Your task to perform on an android device: Open the phone app and click the voicemail tab. Image 0: 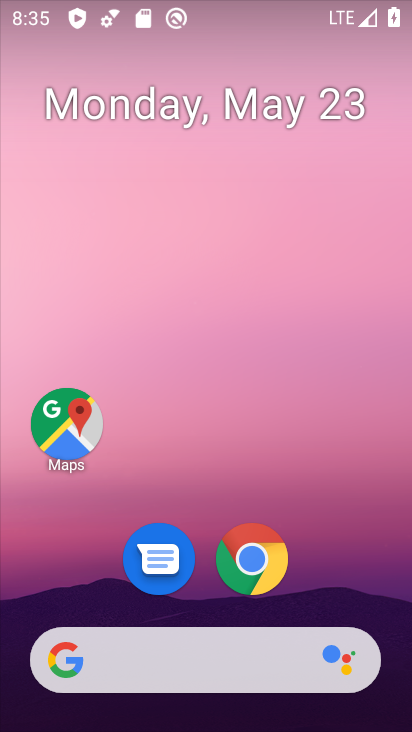
Step 0: drag from (326, 557) to (325, 66)
Your task to perform on an android device: Open the phone app and click the voicemail tab. Image 1: 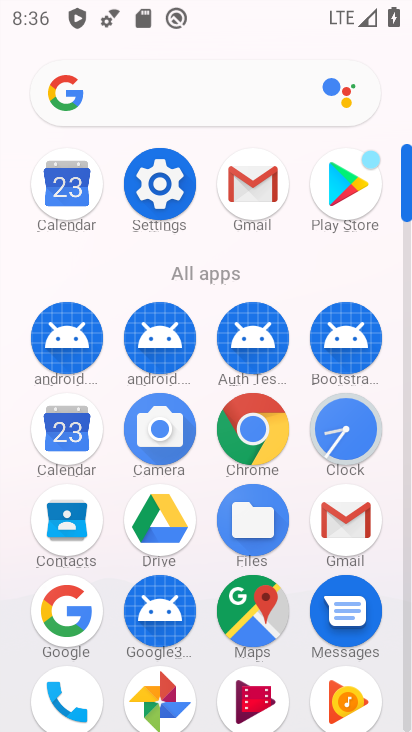
Step 1: click (76, 693)
Your task to perform on an android device: Open the phone app and click the voicemail tab. Image 2: 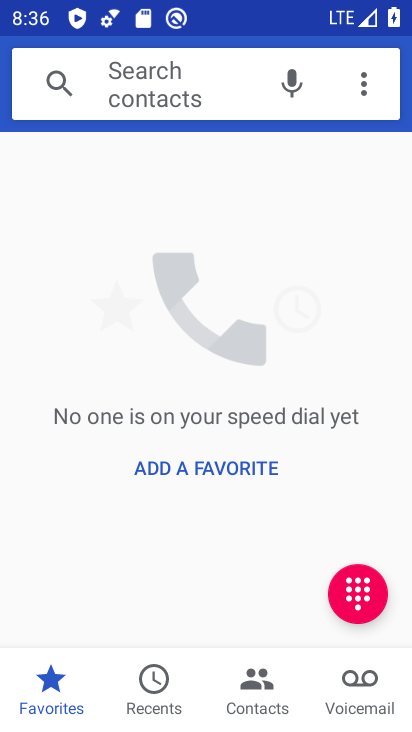
Step 2: click (345, 699)
Your task to perform on an android device: Open the phone app and click the voicemail tab. Image 3: 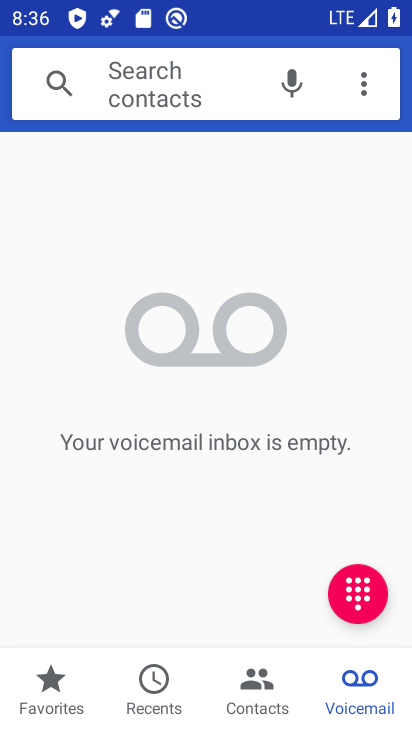
Step 3: task complete